Your task to perform on an android device: turn off location Image 0: 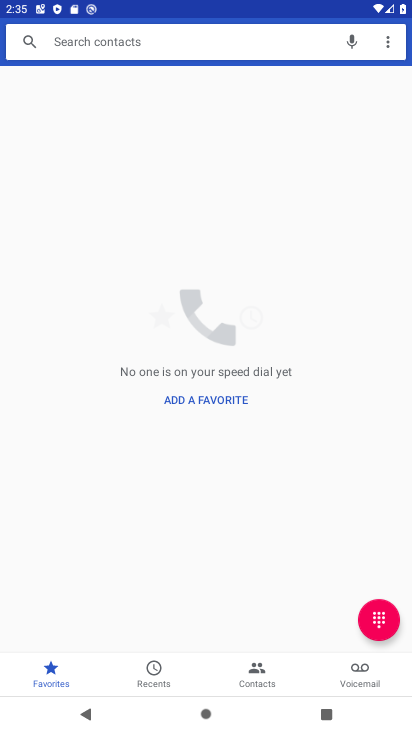
Step 0: press home button
Your task to perform on an android device: turn off location Image 1: 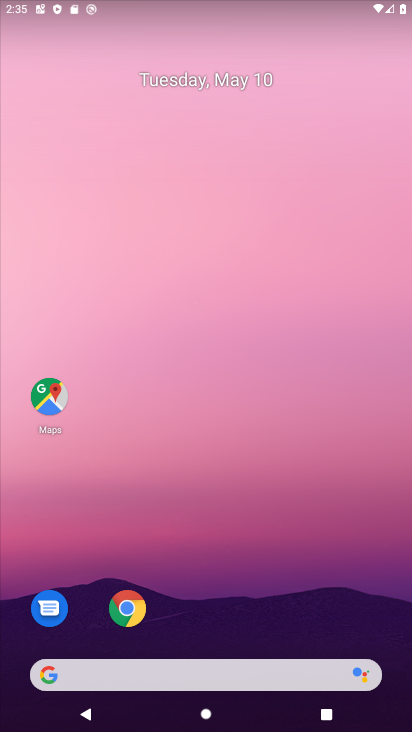
Step 1: drag from (218, 624) to (345, 18)
Your task to perform on an android device: turn off location Image 2: 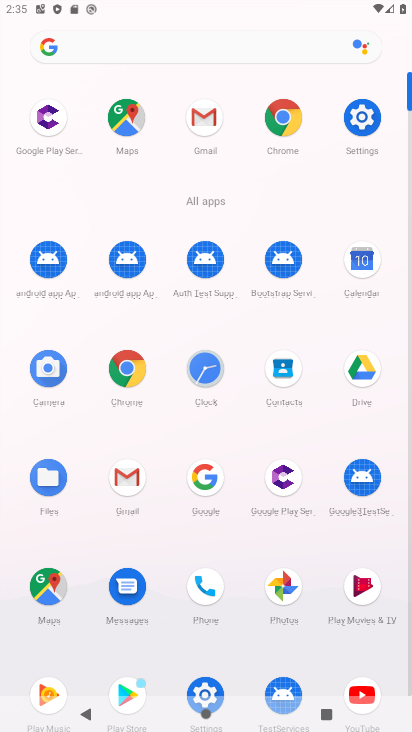
Step 2: click (357, 140)
Your task to perform on an android device: turn off location Image 3: 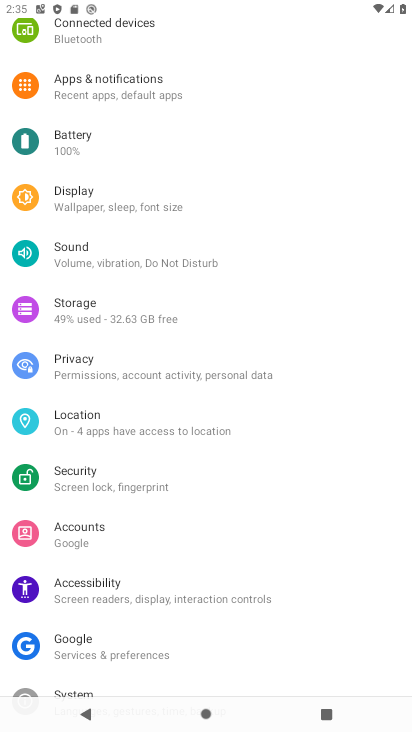
Step 3: click (109, 428)
Your task to perform on an android device: turn off location Image 4: 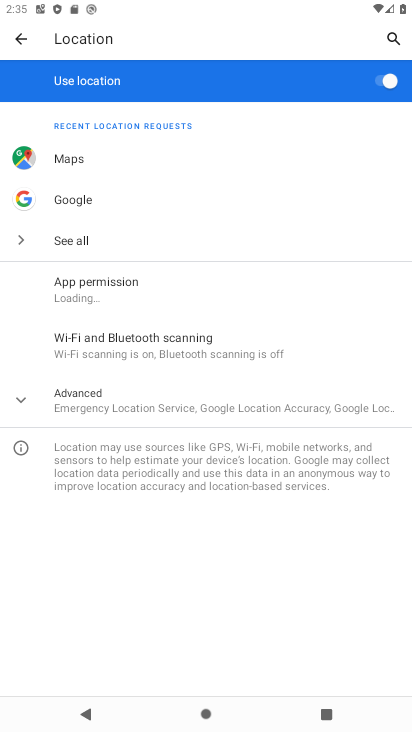
Step 4: click (381, 82)
Your task to perform on an android device: turn off location Image 5: 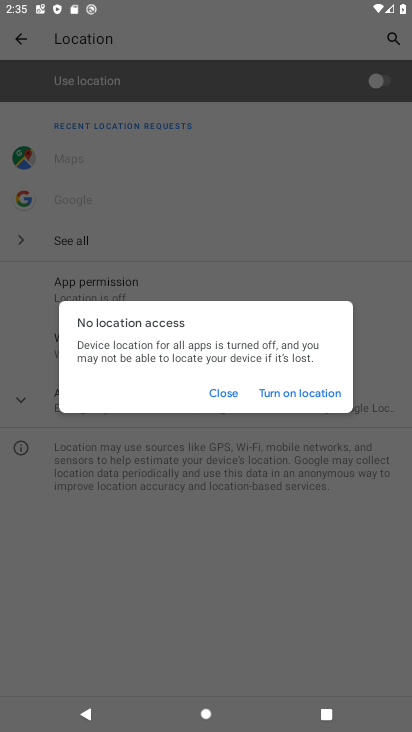
Step 5: click (232, 389)
Your task to perform on an android device: turn off location Image 6: 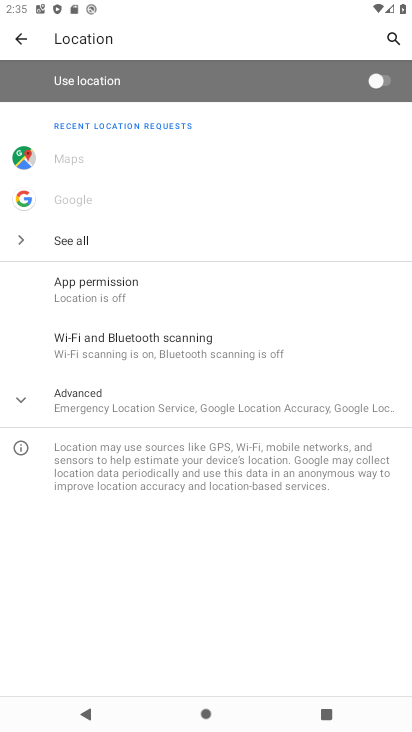
Step 6: task complete